Your task to perform on an android device: Open the music app Image 0: 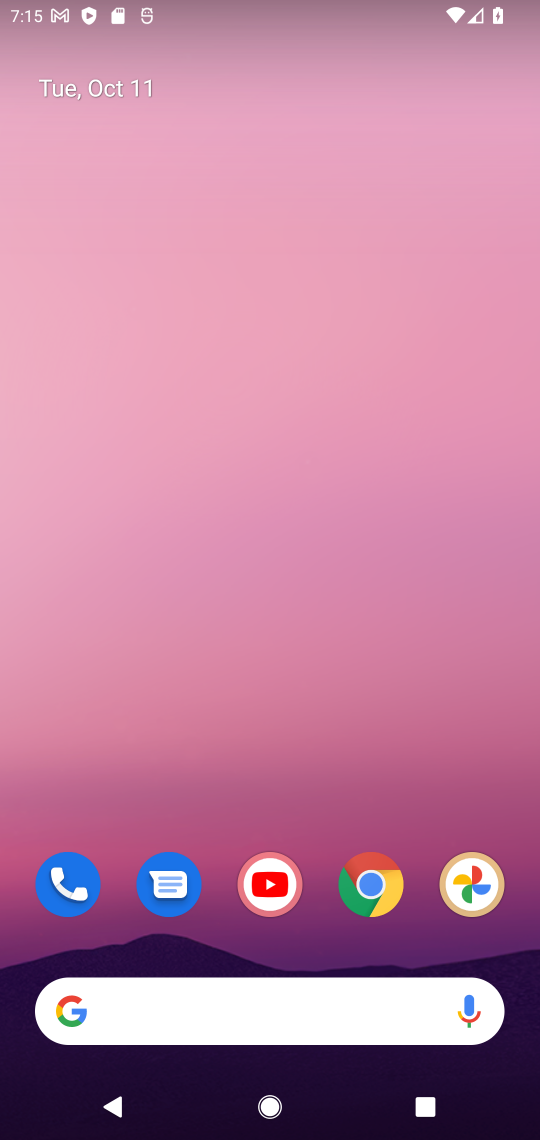
Step 0: drag from (319, 826) to (310, 187)
Your task to perform on an android device: Open the music app Image 1: 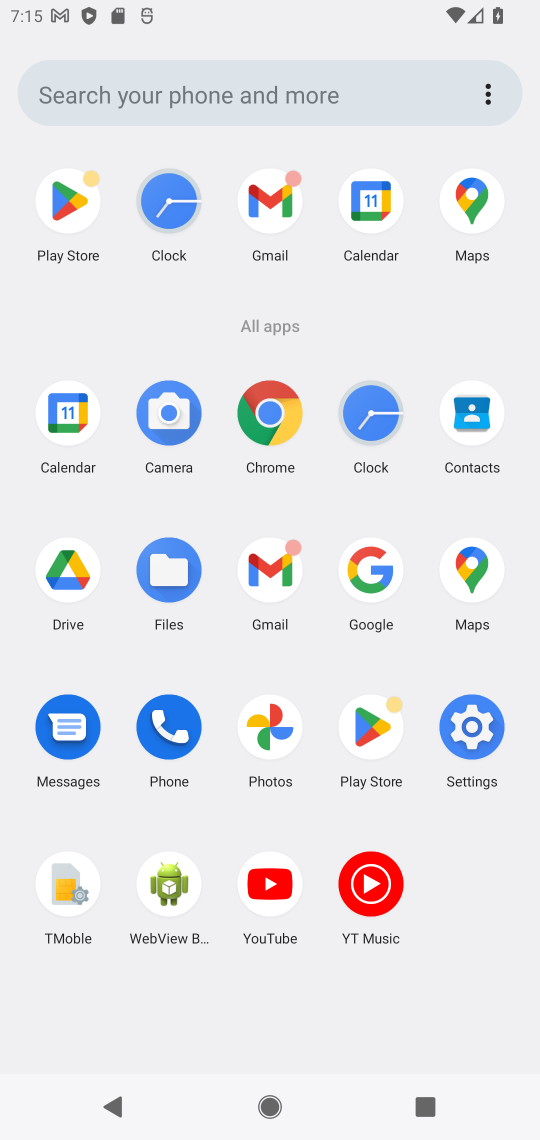
Step 1: task complete